Your task to perform on an android device: turn on priority inbox in the gmail app Image 0: 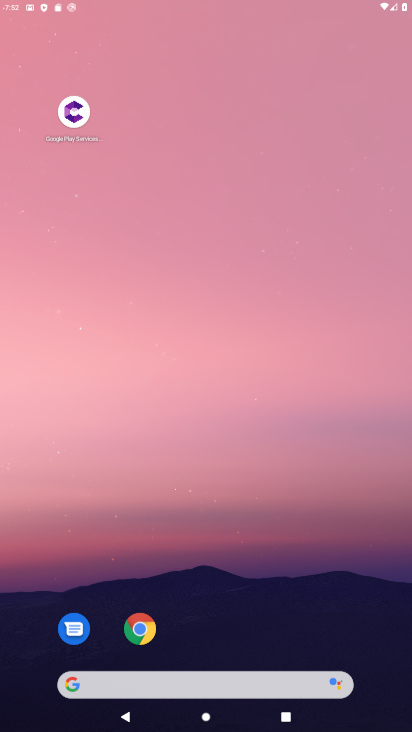
Step 0: click (181, 460)
Your task to perform on an android device: turn on priority inbox in the gmail app Image 1: 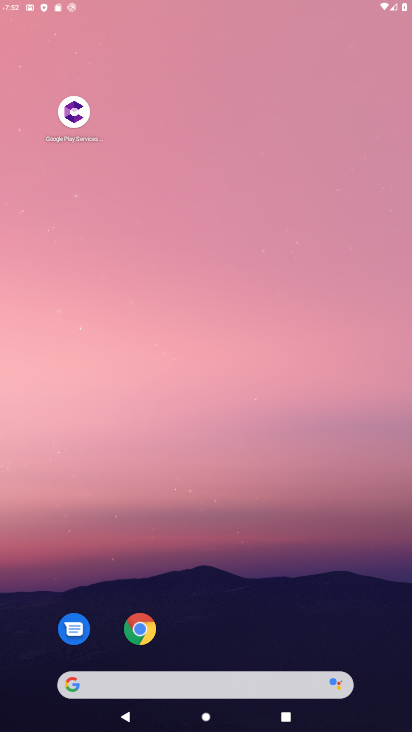
Step 1: drag from (238, 565) to (247, 242)
Your task to perform on an android device: turn on priority inbox in the gmail app Image 2: 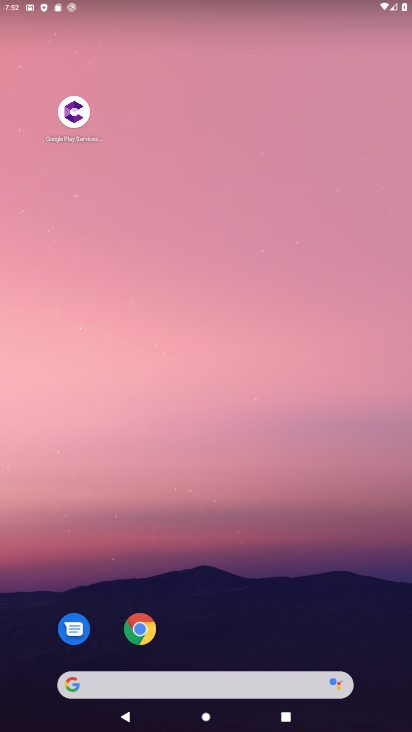
Step 2: drag from (223, 608) to (271, 236)
Your task to perform on an android device: turn on priority inbox in the gmail app Image 3: 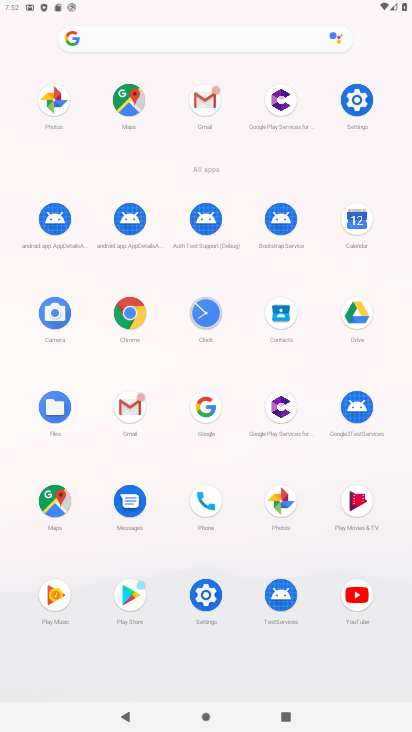
Step 3: click (202, 97)
Your task to perform on an android device: turn on priority inbox in the gmail app Image 4: 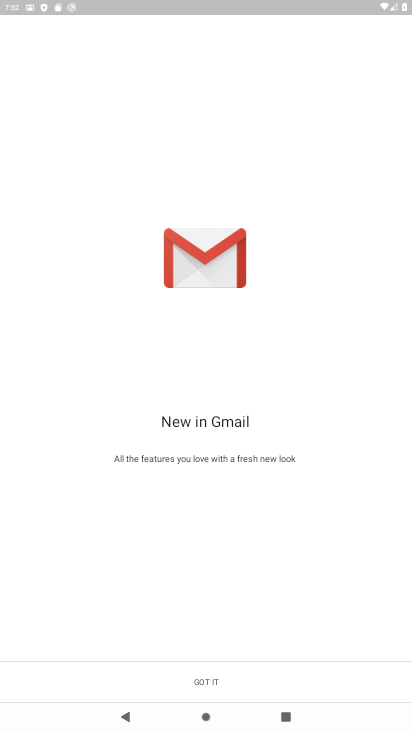
Step 4: click (206, 680)
Your task to perform on an android device: turn on priority inbox in the gmail app Image 5: 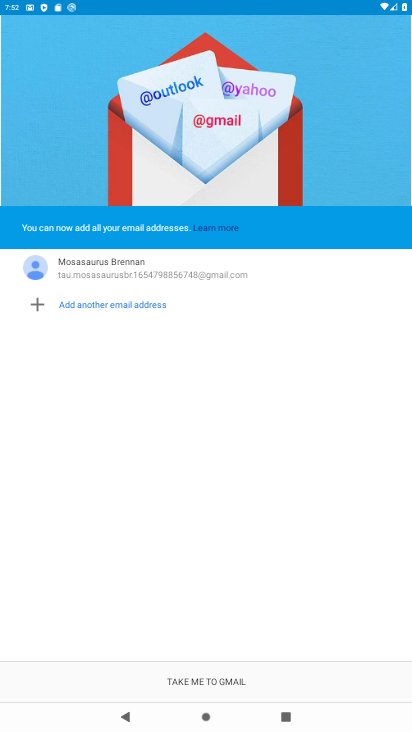
Step 5: click (282, 673)
Your task to perform on an android device: turn on priority inbox in the gmail app Image 6: 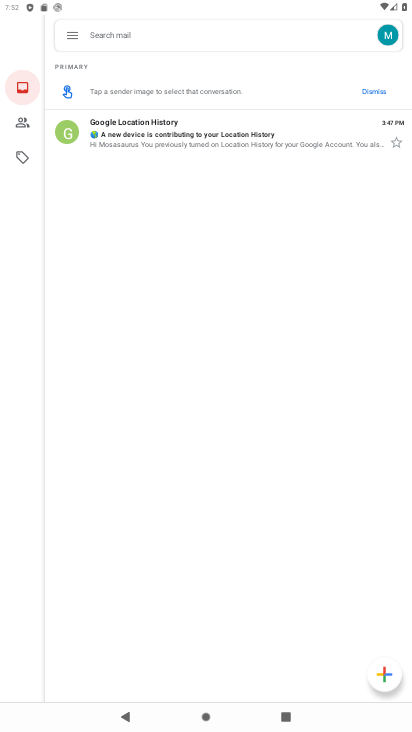
Step 6: click (71, 36)
Your task to perform on an android device: turn on priority inbox in the gmail app Image 7: 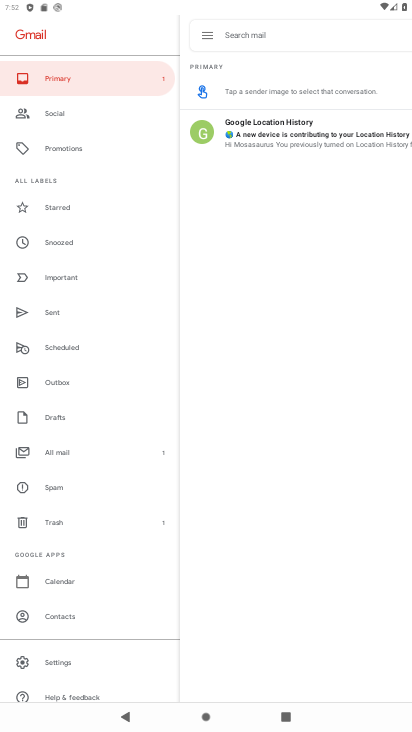
Step 7: click (29, 660)
Your task to perform on an android device: turn on priority inbox in the gmail app Image 8: 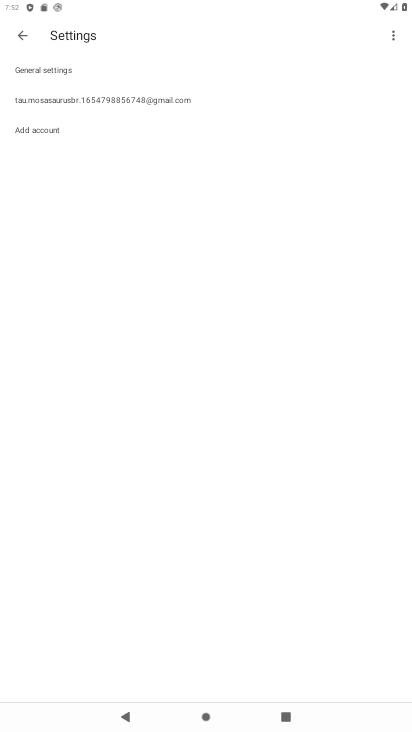
Step 8: click (70, 65)
Your task to perform on an android device: turn on priority inbox in the gmail app Image 9: 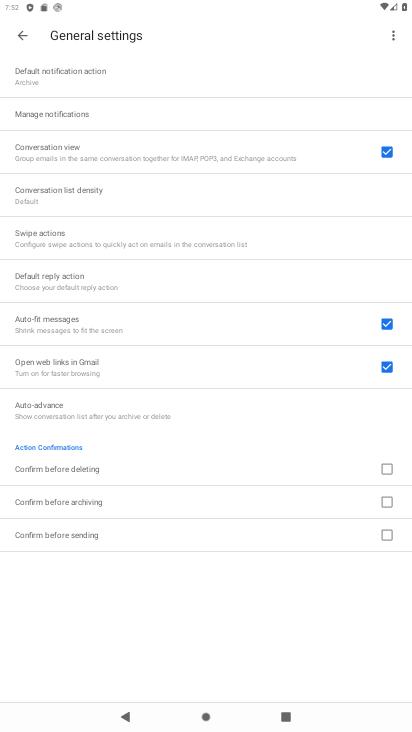
Step 9: click (24, 32)
Your task to perform on an android device: turn on priority inbox in the gmail app Image 10: 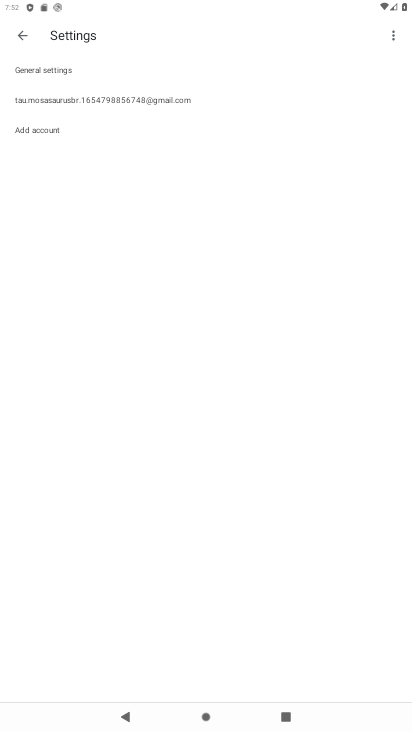
Step 10: click (90, 99)
Your task to perform on an android device: turn on priority inbox in the gmail app Image 11: 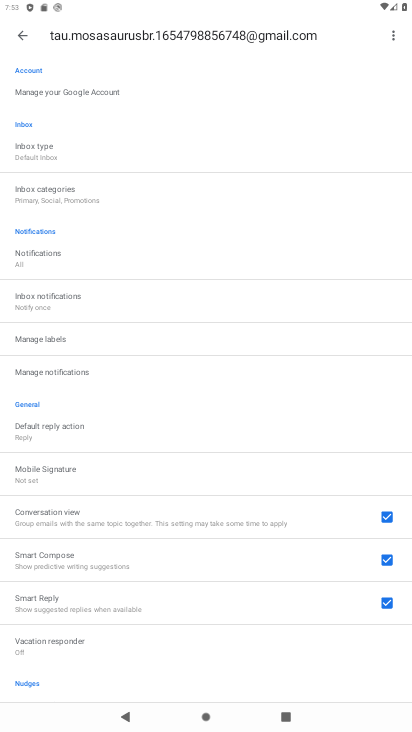
Step 11: click (62, 152)
Your task to perform on an android device: turn on priority inbox in the gmail app Image 12: 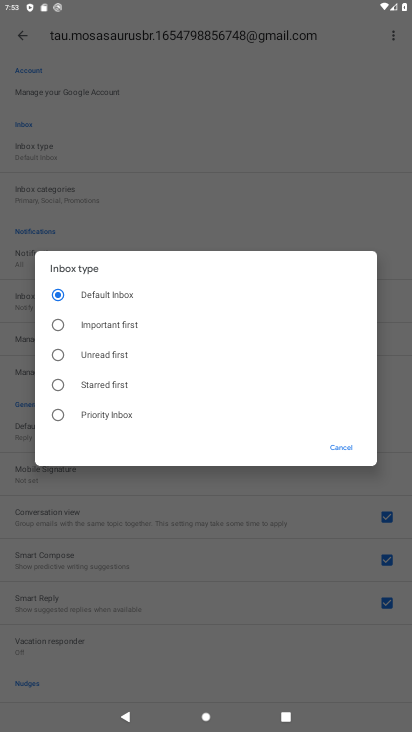
Step 12: click (93, 411)
Your task to perform on an android device: turn on priority inbox in the gmail app Image 13: 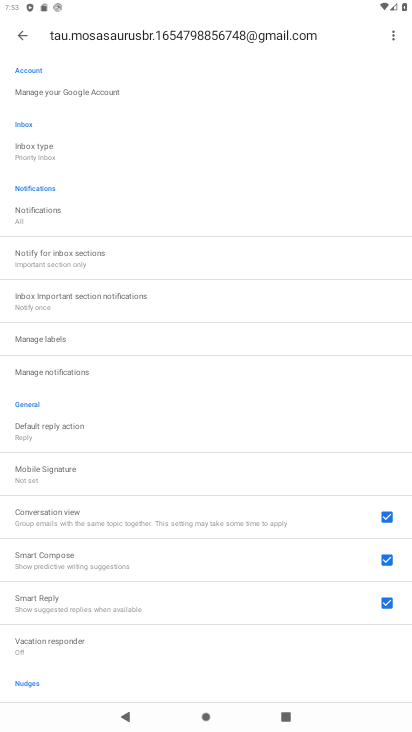
Step 13: task complete